Your task to perform on an android device: Is it going to rain tomorrow? Image 0: 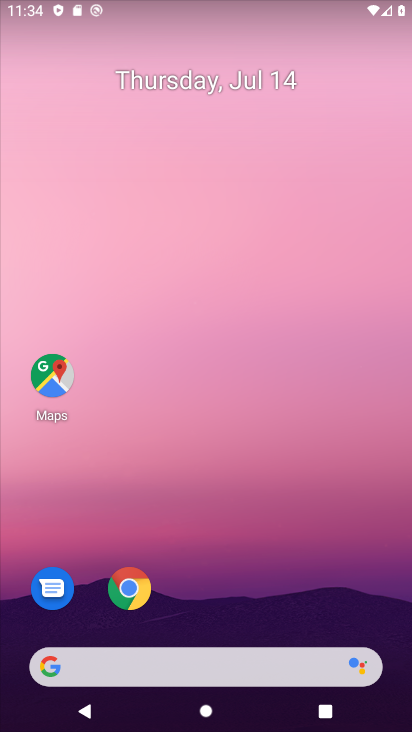
Step 0: click (217, 671)
Your task to perform on an android device: Is it going to rain tomorrow? Image 1: 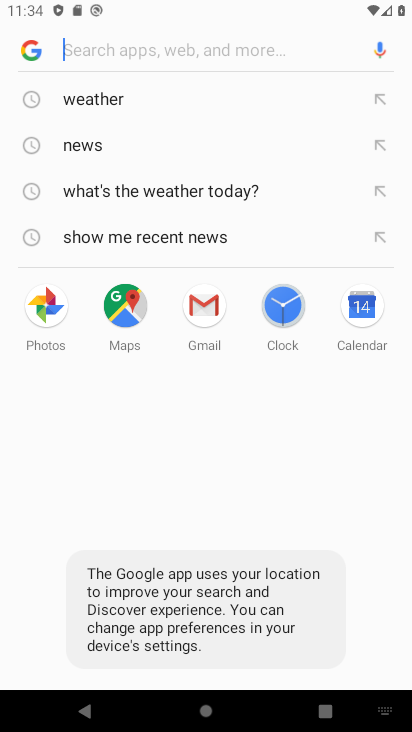
Step 1: type "Is it going to rain tomorrow?"
Your task to perform on an android device: Is it going to rain tomorrow? Image 2: 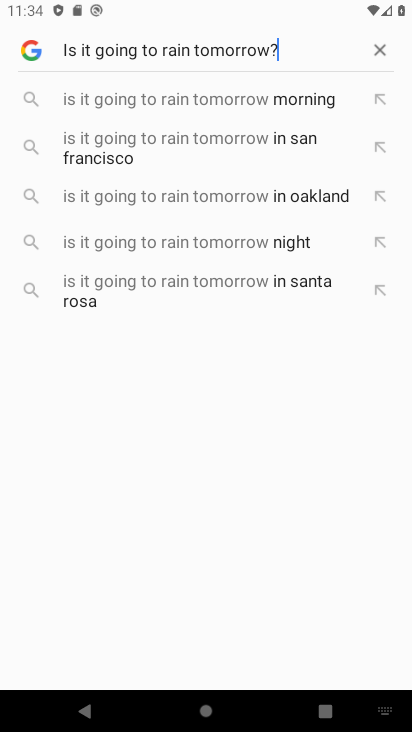
Step 2: press enter
Your task to perform on an android device: Is it going to rain tomorrow? Image 3: 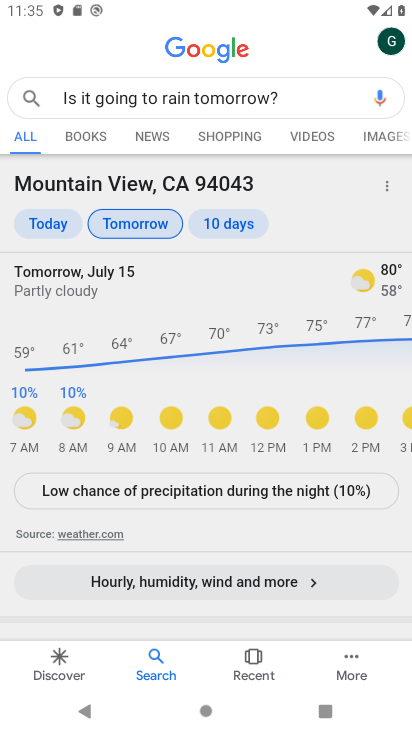
Step 3: task complete